Your task to perform on an android device: What's the weather? Image 0: 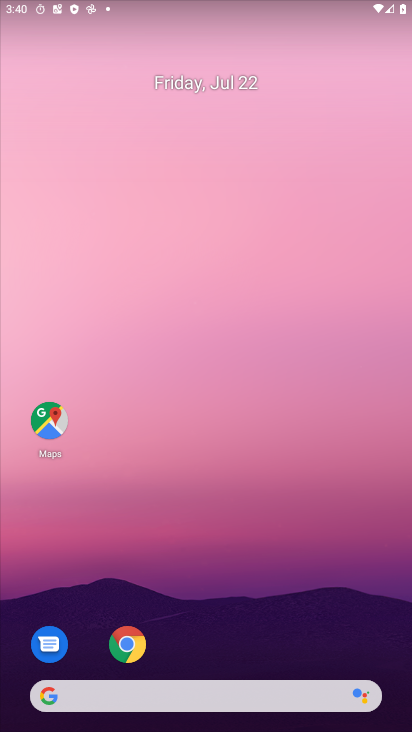
Step 0: drag from (225, 689) to (274, 167)
Your task to perform on an android device: What's the weather? Image 1: 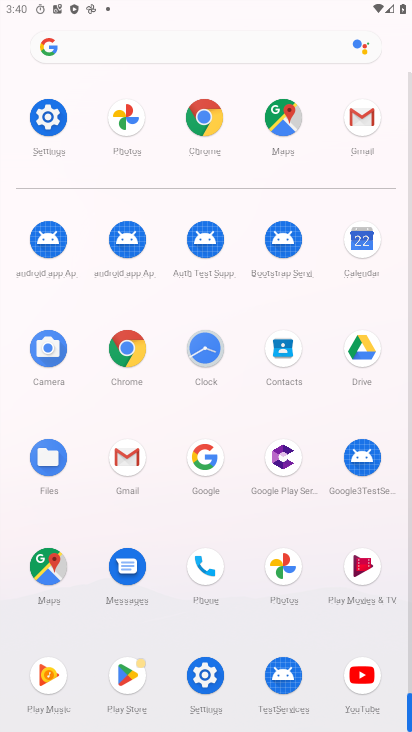
Step 1: click (213, 474)
Your task to perform on an android device: What's the weather? Image 2: 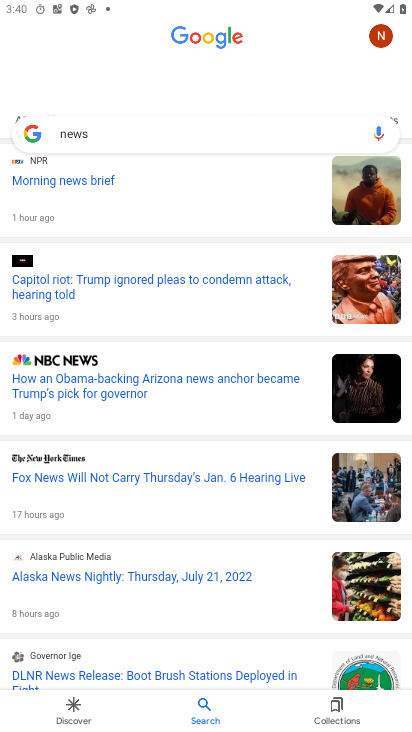
Step 2: click (238, 131)
Your task to perform on an android device: What's the weather? Image 3: 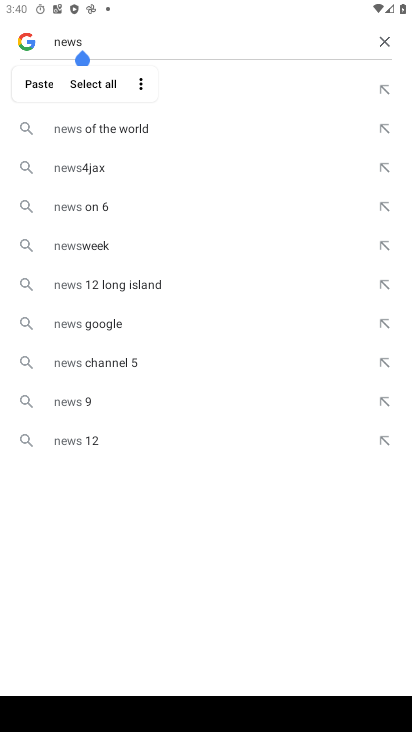
Step 3: click (384, 47)
Your task to perform on an android device: What's the weather? Image 4: 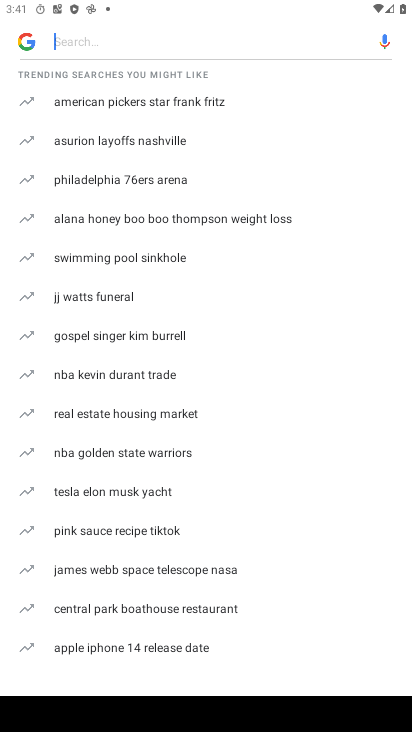
Step 4: type "weather"
Your task to perform on an android device: What's the weather? Image 5: 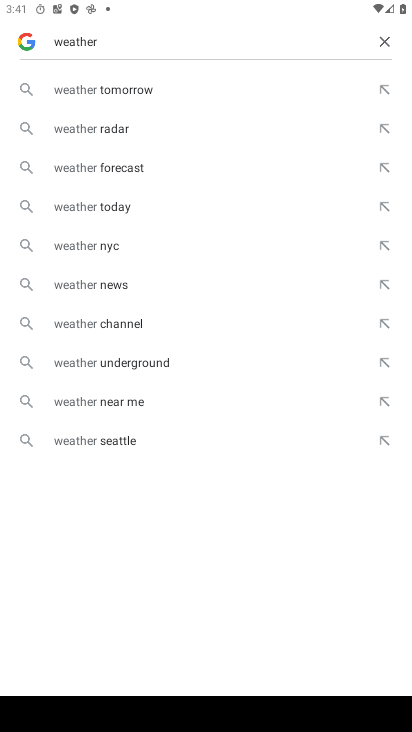
Step 5: click (127, 201)
Your task to perform on an android device: What's the weather? Image 6: 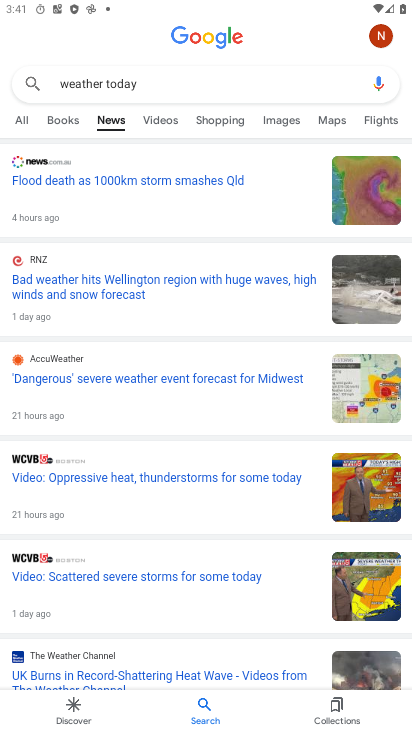
Step 6: click (26, 128)
Your task to perform on an android device: What's the weather? Image 7: 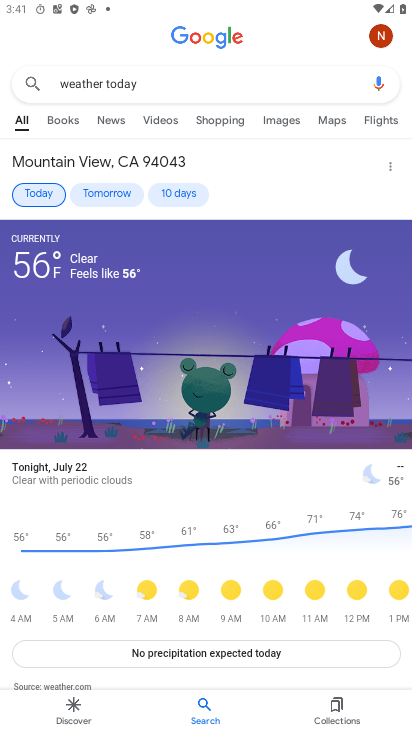
Step 7: task complete